Your task to perform on an android device: read, delete, or share a saved page in the chrome app Image 0: 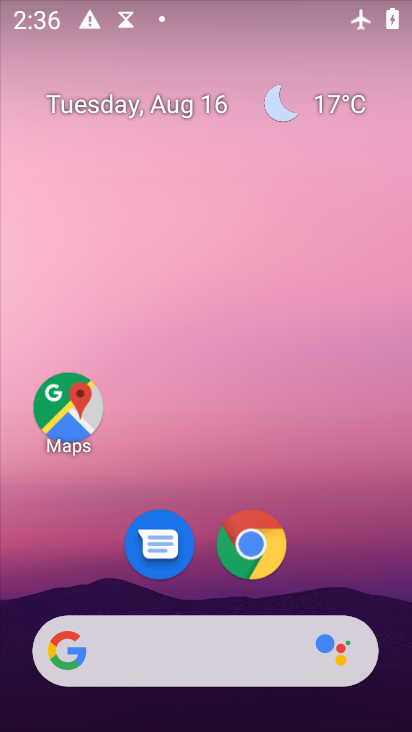
Step 0: click (250, 548)
Your task to perform on an android device: read, delete, or share a saved page in the chrome app Image 1: 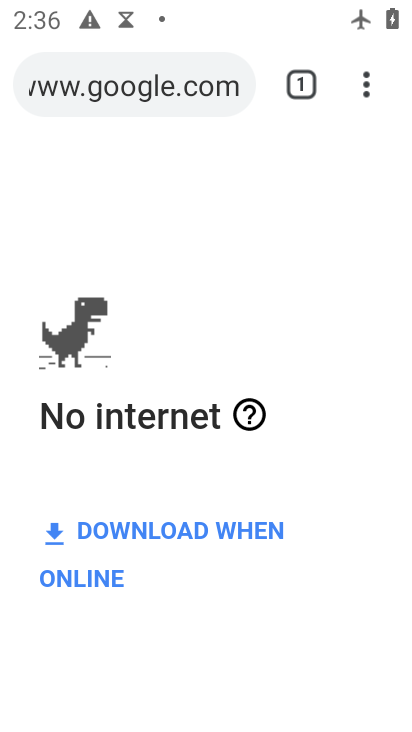
Step 1: click (368, 89)
Your task to perform on an android device: read, delete, or share a saved page in the chrome app Image 2: 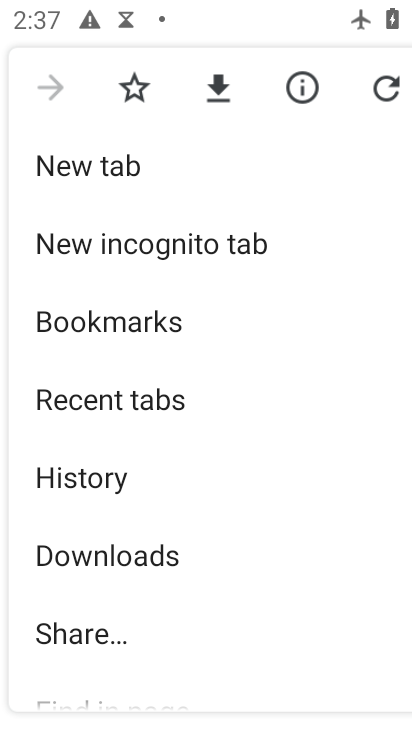
Step 2: drag from (89, 527) to (133, 423)
Your task to perform on an android device: read, delete, or share a saved page in the chrome app Image 3: 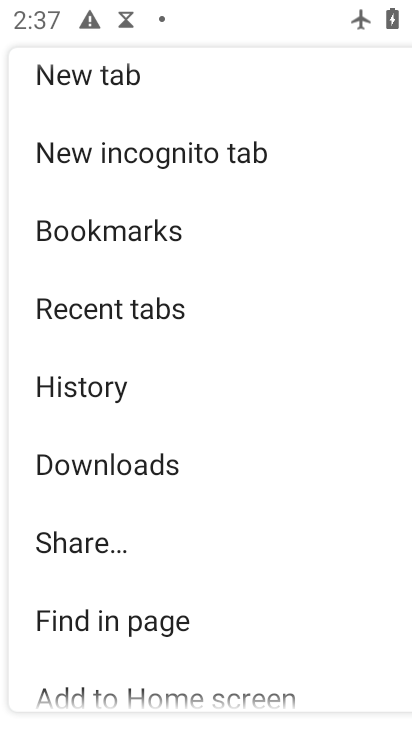
Step 3: click (132, 464)
Your task to perform on an android device: read, delete, or share a saved page in the chrome app Image 4: 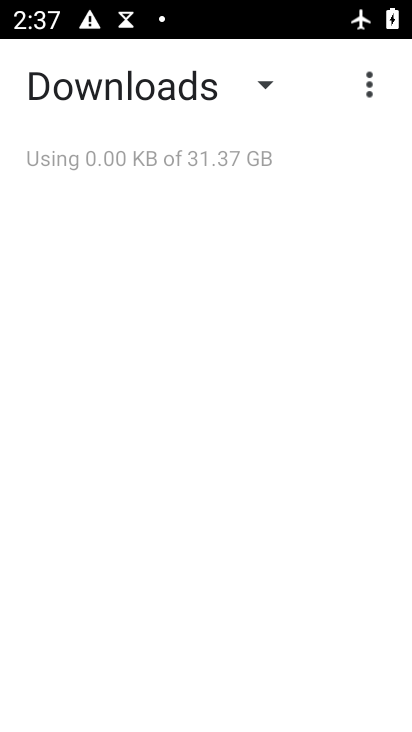
Step 4: task complete